Your task to perform on an android device: Show me popular videos on Youtube Image 0: 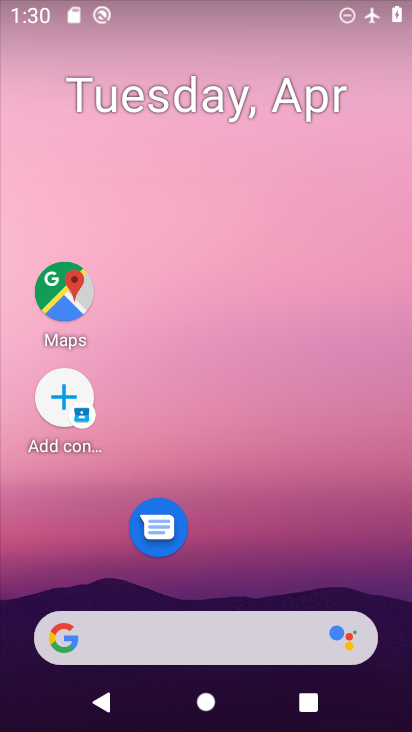
Step 0: drag from (257, 573) to (299, 34)
Your task to perform on an android device: Show me popular videos on Youtube Image 1: 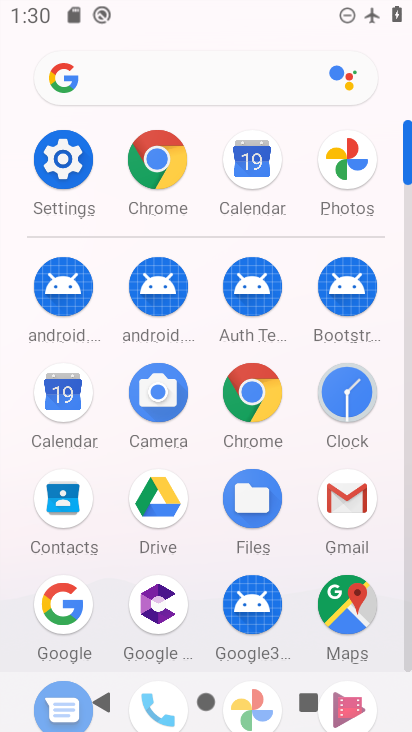
Step 1: drag from (191, 565) to (248, 143)
Your task to perform on an android device: Show me popular videos on Youtube Image 2: 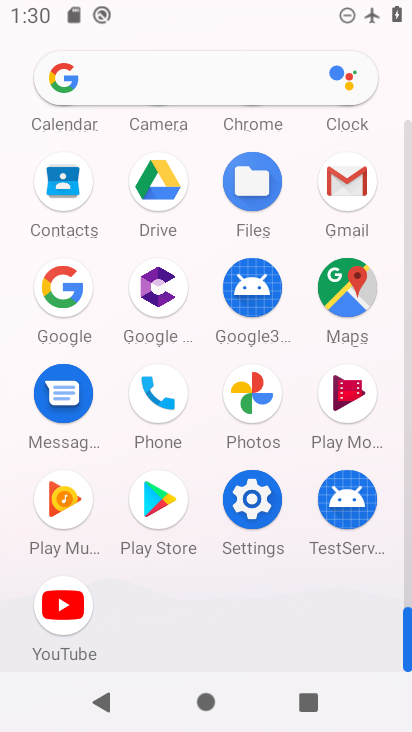
Step 2: click (156, 495)
Your task to perform on an android device: Show me popular videos on Youtube Image 3: 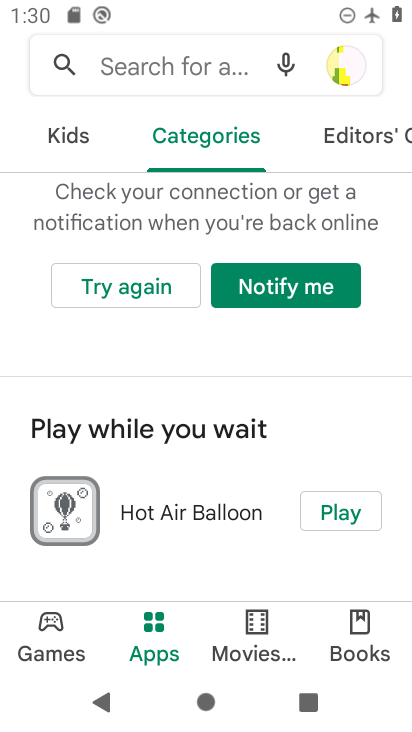
Step 3: click (143, 299)
Your task to perform on an android device: Show me popular videos on Youtube Image 4: 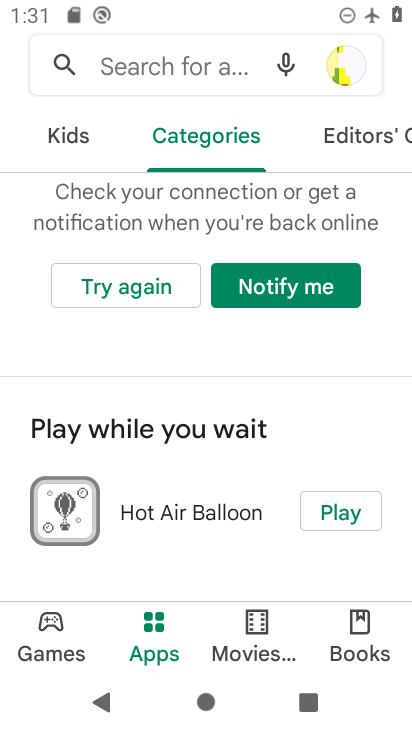
Step 4: click (63, 646)
Your task to perform on an android device: Show me popular videos on Youtube Image 5: 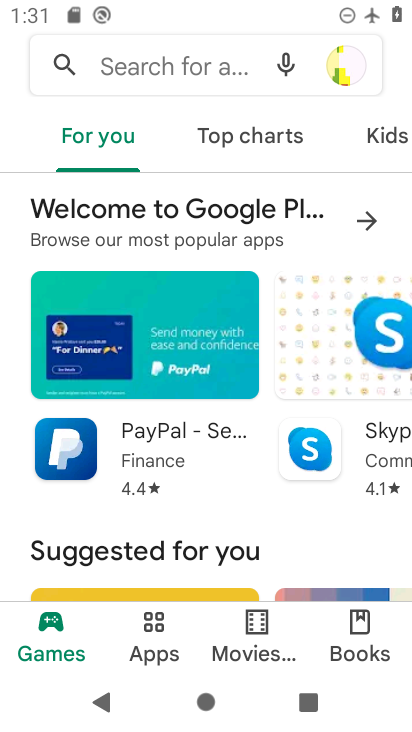
Step 5: press home button
Your task to perform on an android device: Show me popular videos on Youtube Image 6: 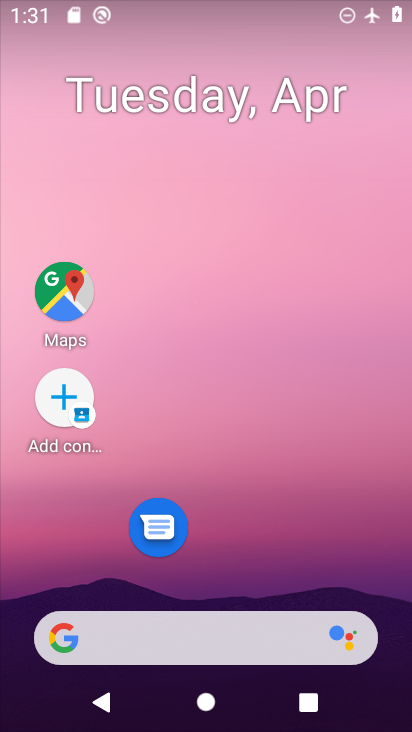
Step 6: drag from (249, 550) to (246, 137)
Your task to perform on an android device: Show me popular videos on Youtube Image 7: 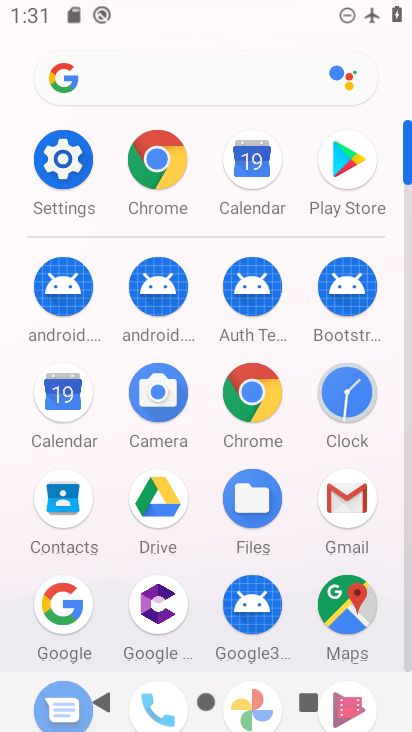
Step 7: drag from (306, 625) to (309, 301)
Your task to perform on an android device: Show me popular videos on Youtube Image 8: 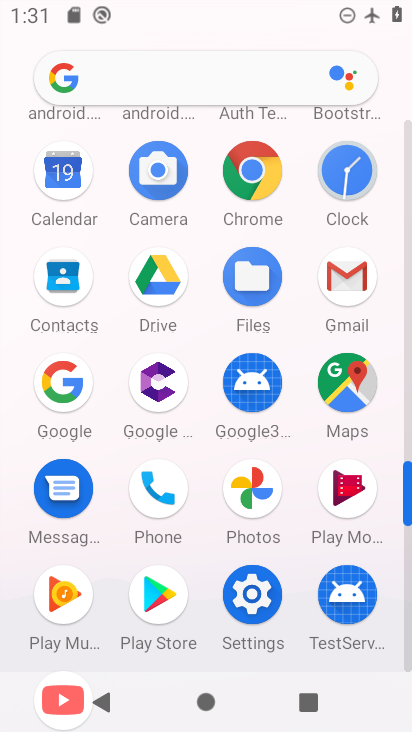
Step 8: drag from (110, 595) to (131, 322)
Your task to perform on an android device: Show me popular videos on Youtube Image 9: 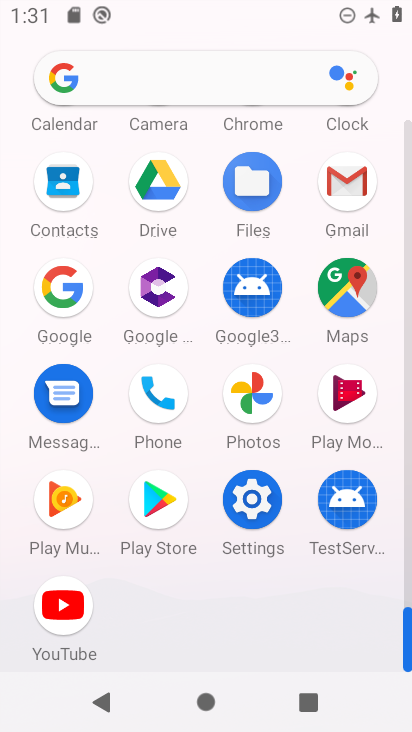
Step 9: click (65, 610)
Your task to perform on an android device: Show me popular videos on Youtube Image 10: 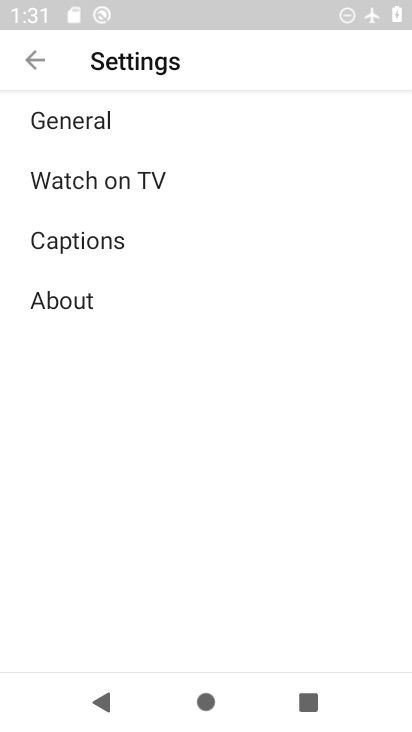
Step 10: press back button
Your task to perform on an android device: Show me popular videos on Youtube Image 11: 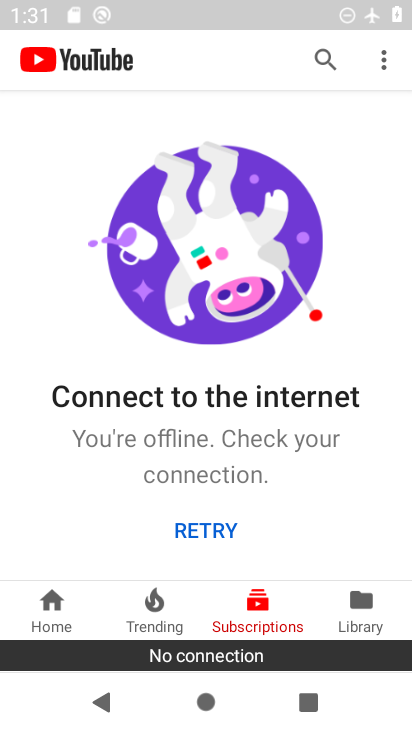
Step 11: click (41, 612)
Your task to perform on an android device: Show me popular videos on Youtube Image 12: 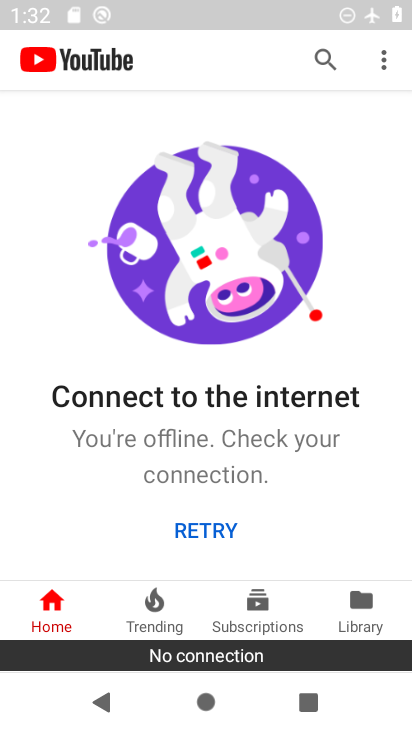
Step 12: task complete